Your task to perform on an android device: Open Google Maps Image 0: 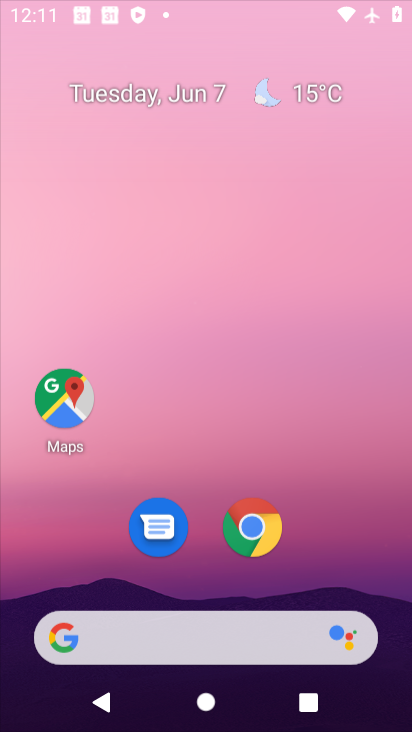
Step 0: click (133, 151)
Your task to perform on an android device: Open Google Maps Image 1: 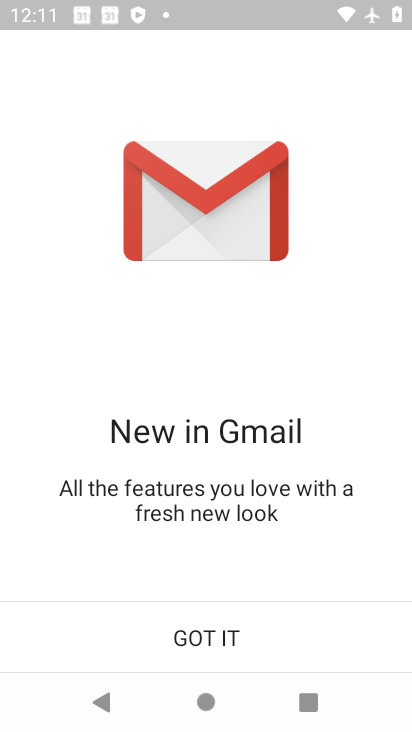
Step 1: click (217, 642)
Your task to perform on an android device: Open Google Maps Image 2: 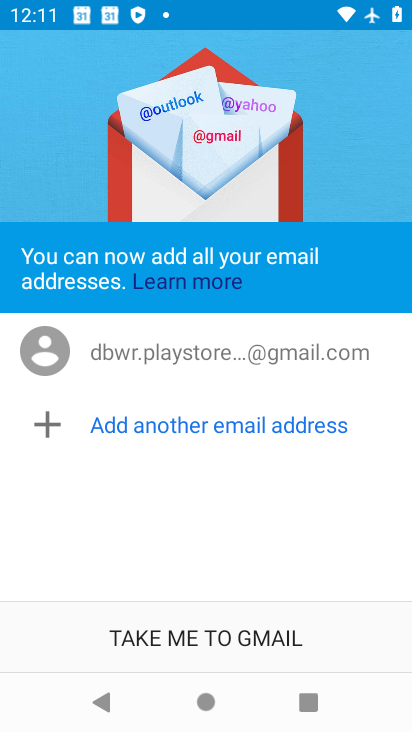
Step 2: click (218, 633)
Your task to perform on an android device: Open Google Maps Image 3: 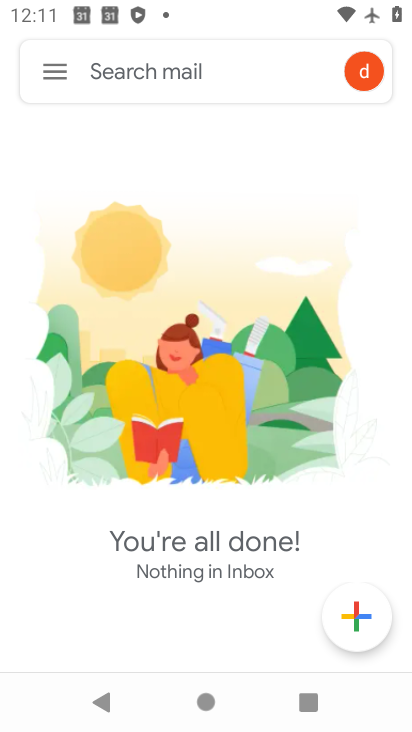
Step 3: press back button
Your task to perform on an android device: Open Google Maps Image 4: 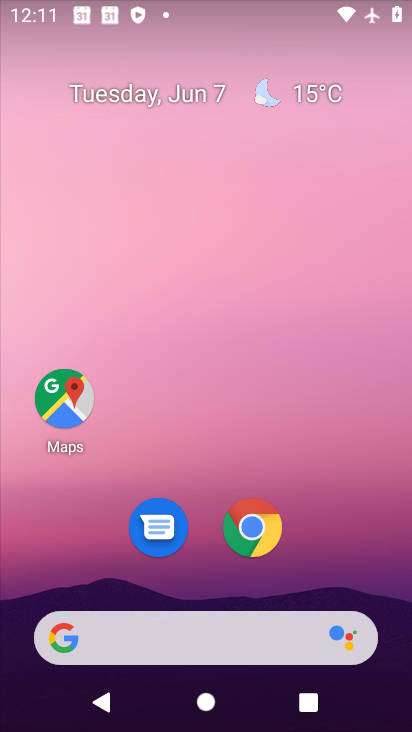
Step 4: drag from (253, 633) to (163, 100)
Your task to perform on an android device: Open Google Maps Image 5: 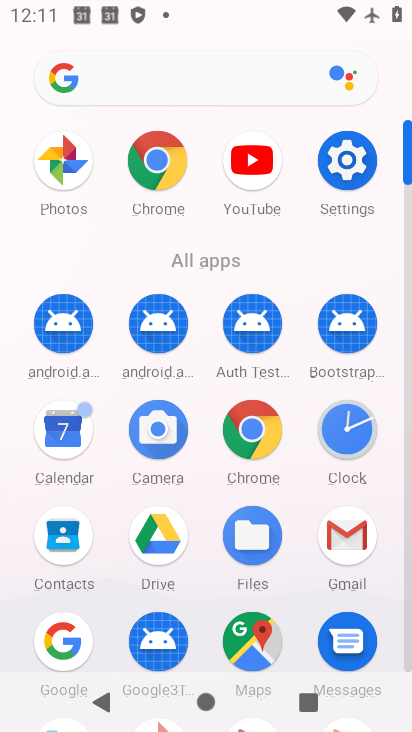
Step 5: click (259, 643)
Your task to perform on an android device: Open Google Maps Image 6: 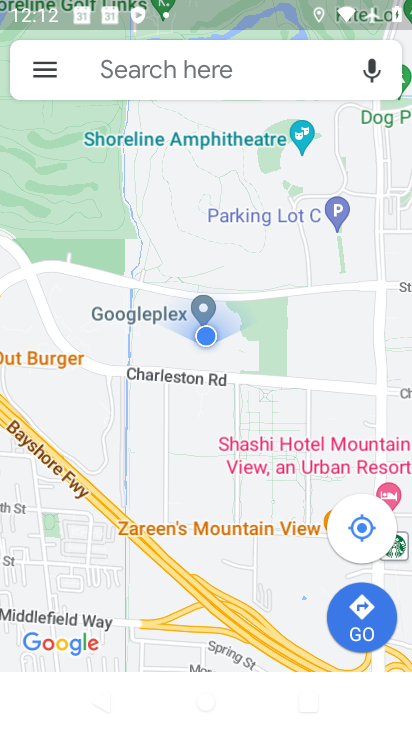
Step 6: task complete